Your task to perform on an android device: Install the Wikipedia app Image 0: 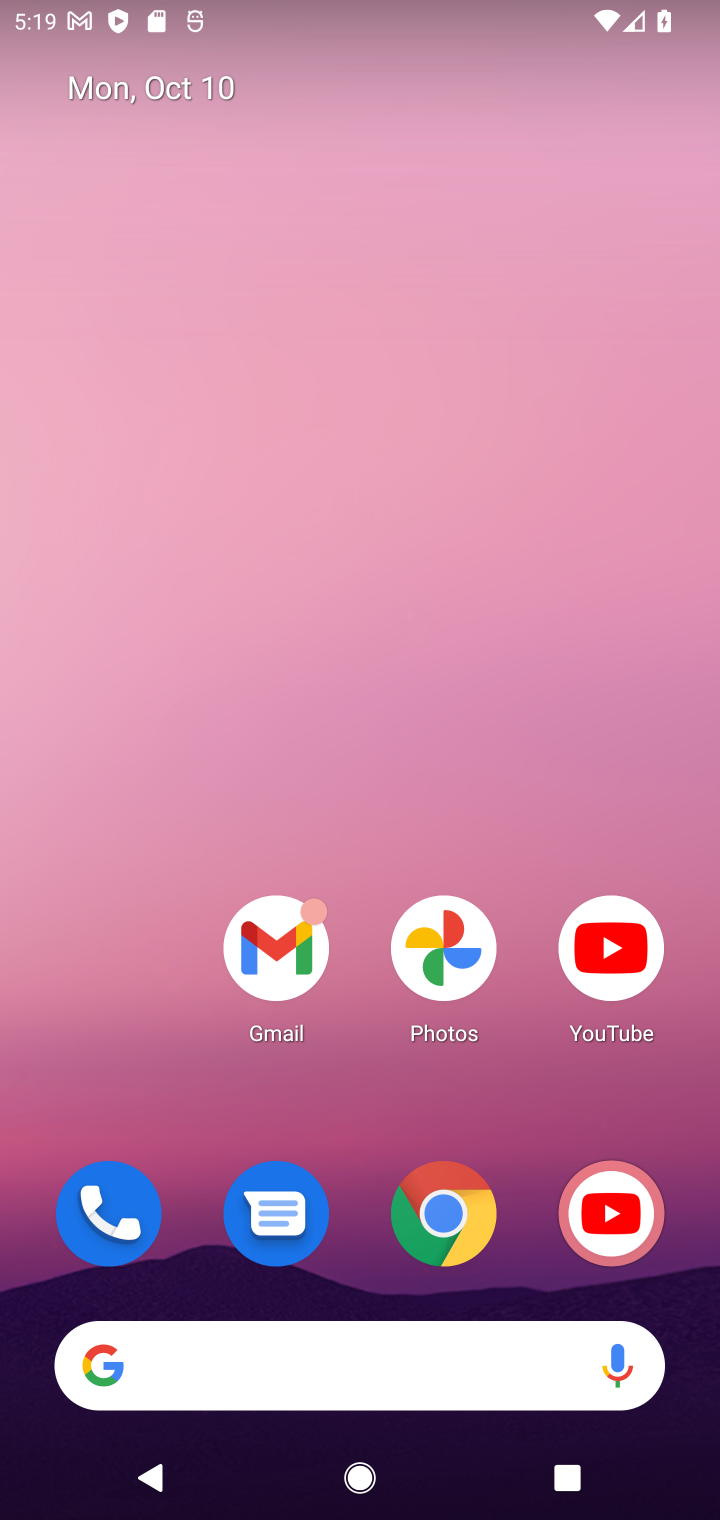
Step 0: drag from (362, 872) to (378, 76)
Your task to perform on an android device: Install the Wikipedia app Image 1: 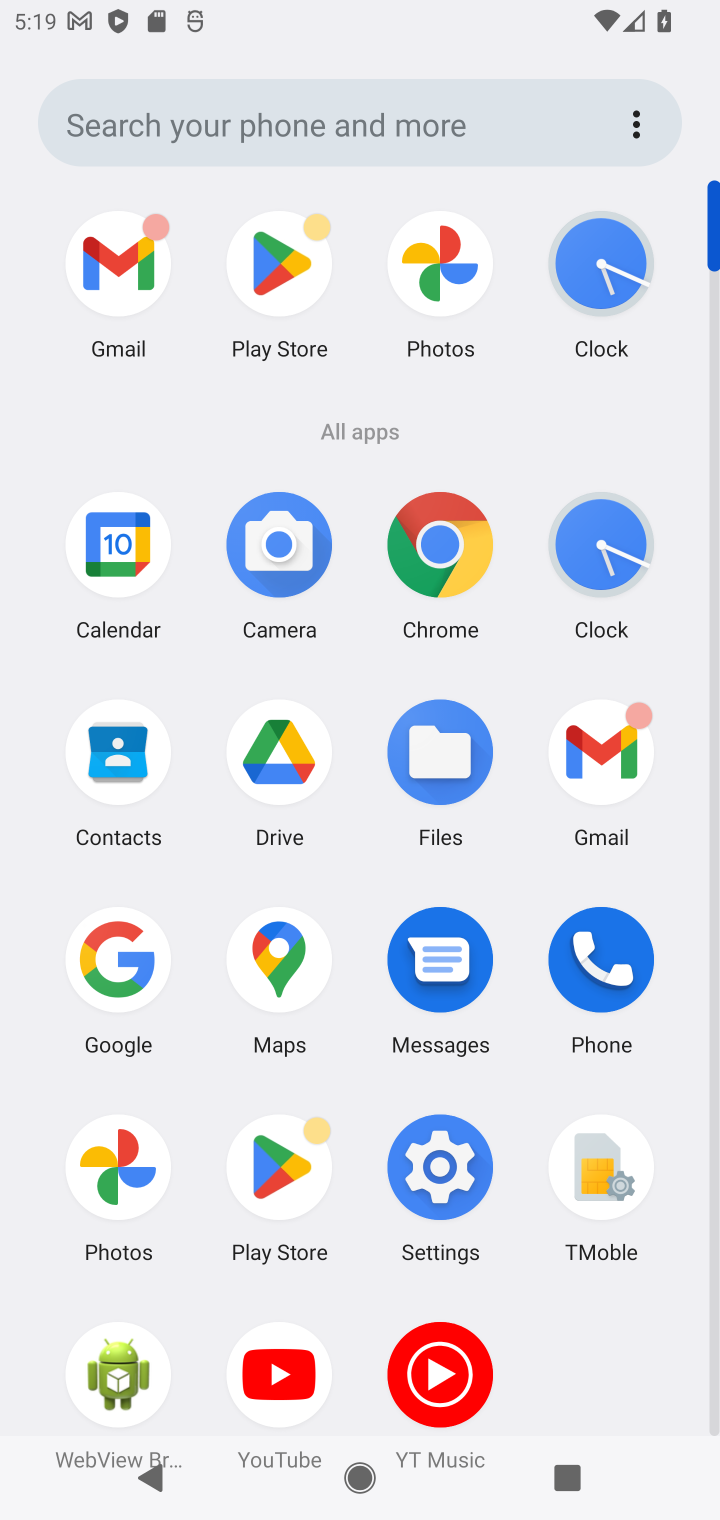
Step 1: click (268, 266)
Your task to perform on an android device: Install the Wikipedia app Image 2: 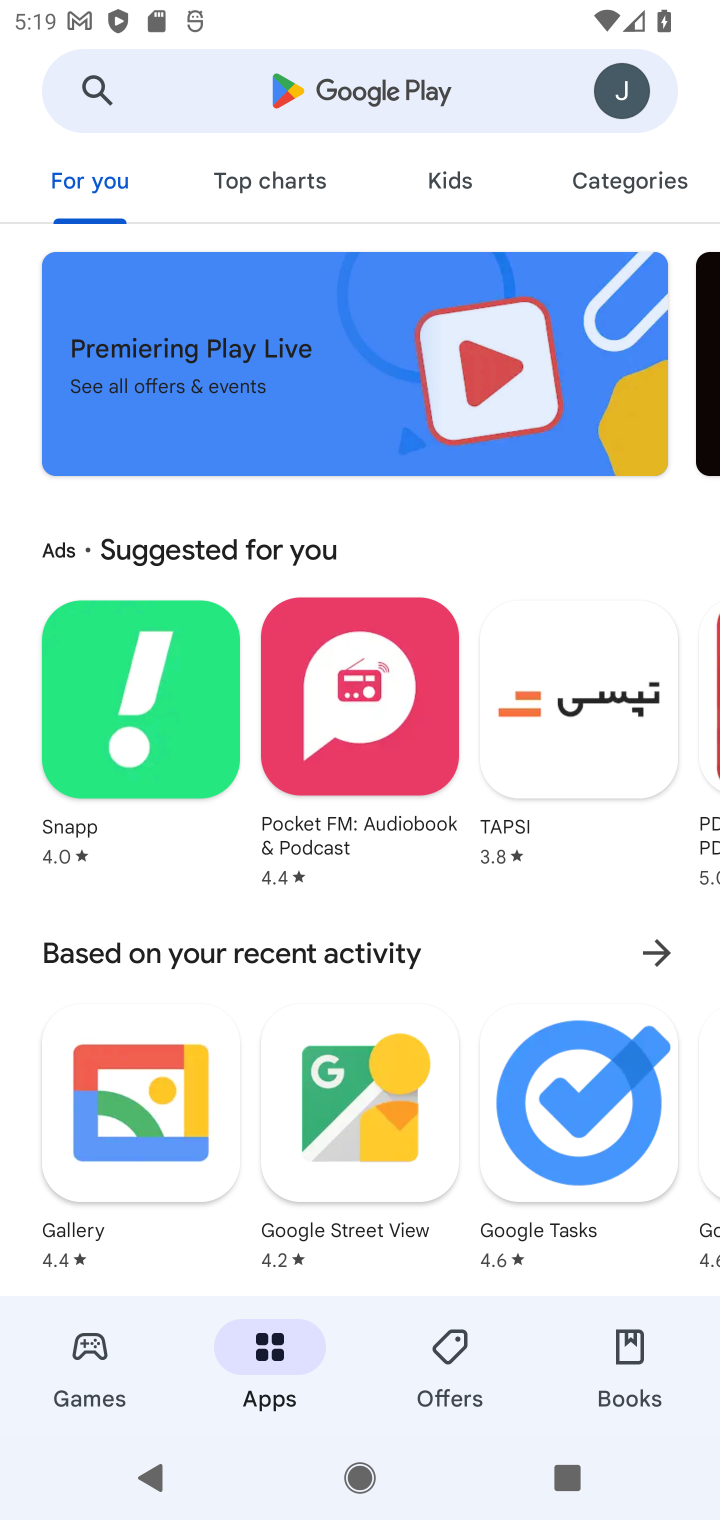
Step 2: click (442, 96)
Your task to perform on an android device: Install the Wikipedia app Image 3: 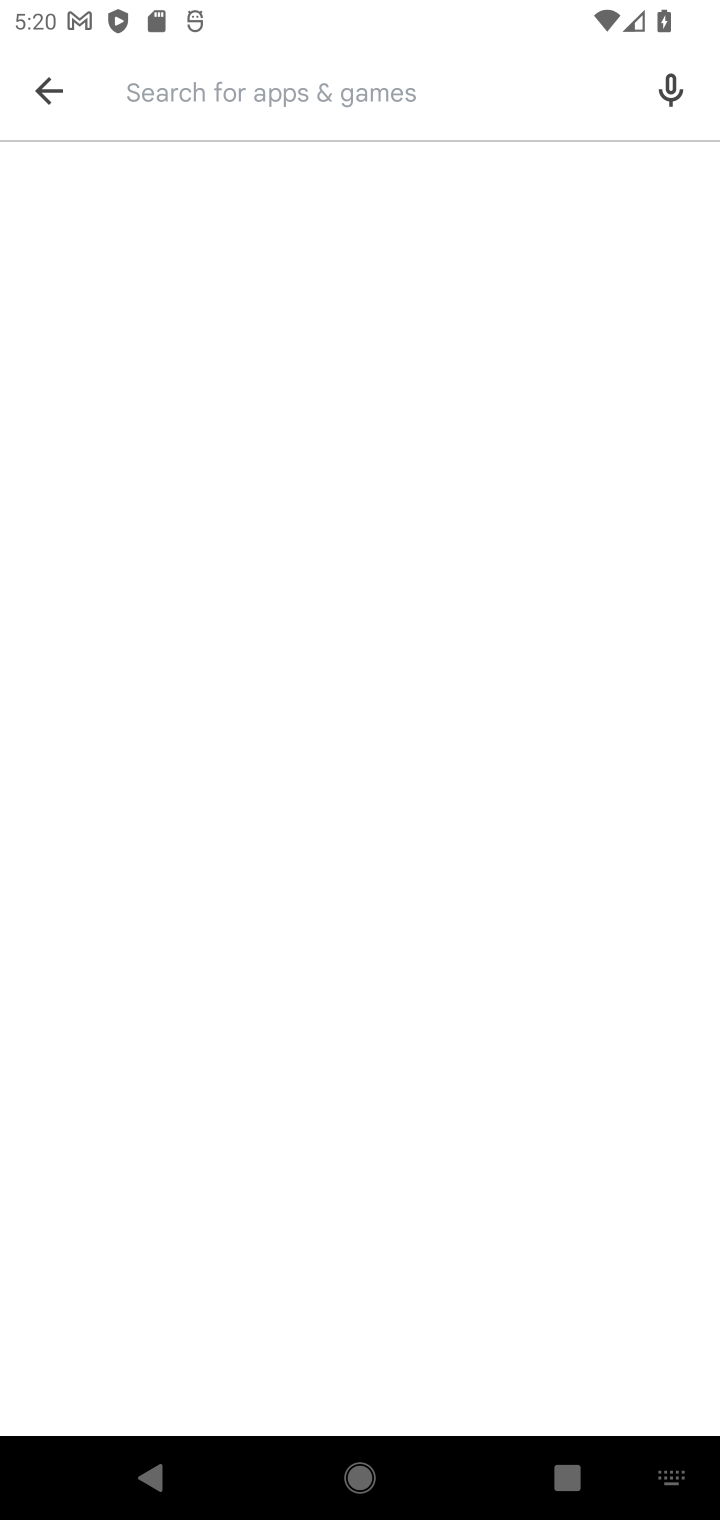
Step 3: type "wikipedia"
Your task to perform on an android device: Install the Wikipedia app Image 4: 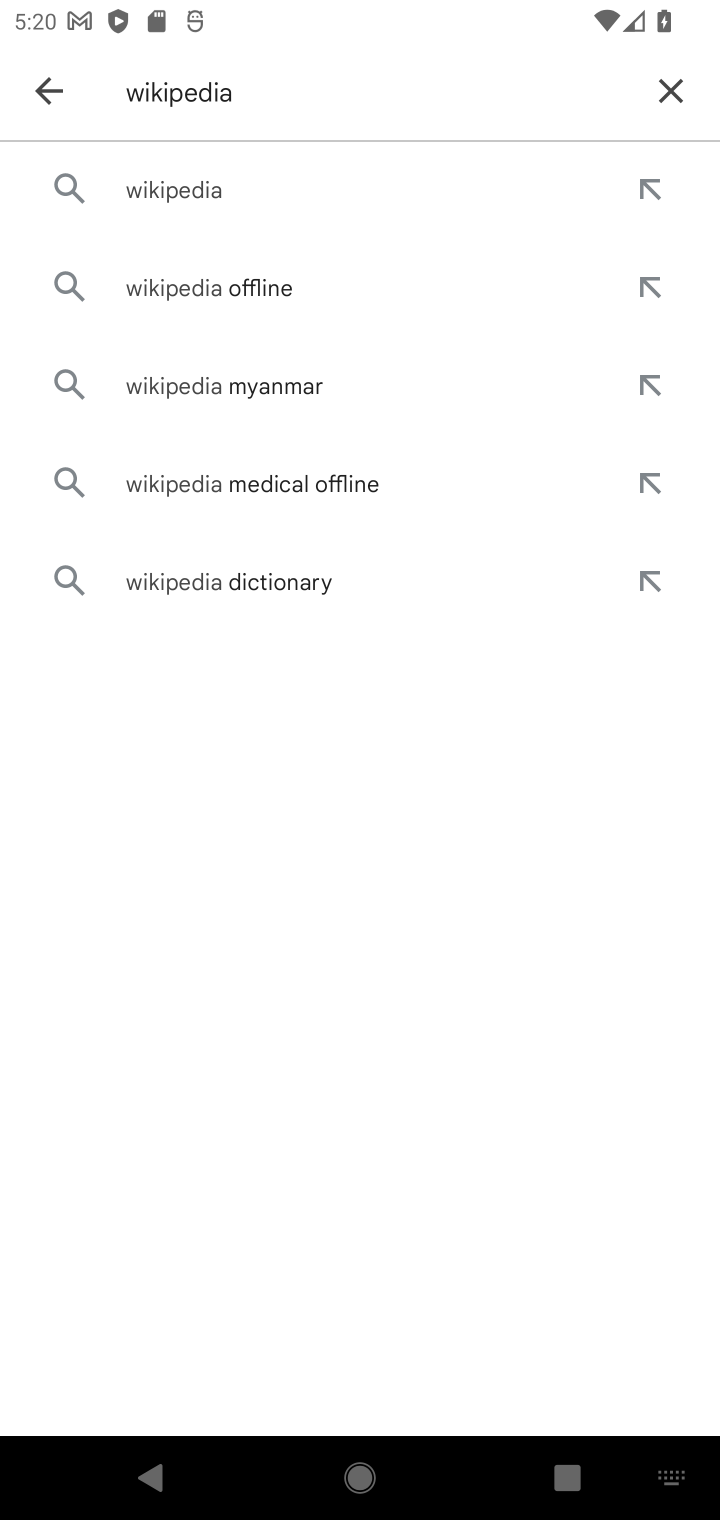
Step 4: click (337, 181)
Your task to perform on an android device: Install the Wikipedia app Image 5: 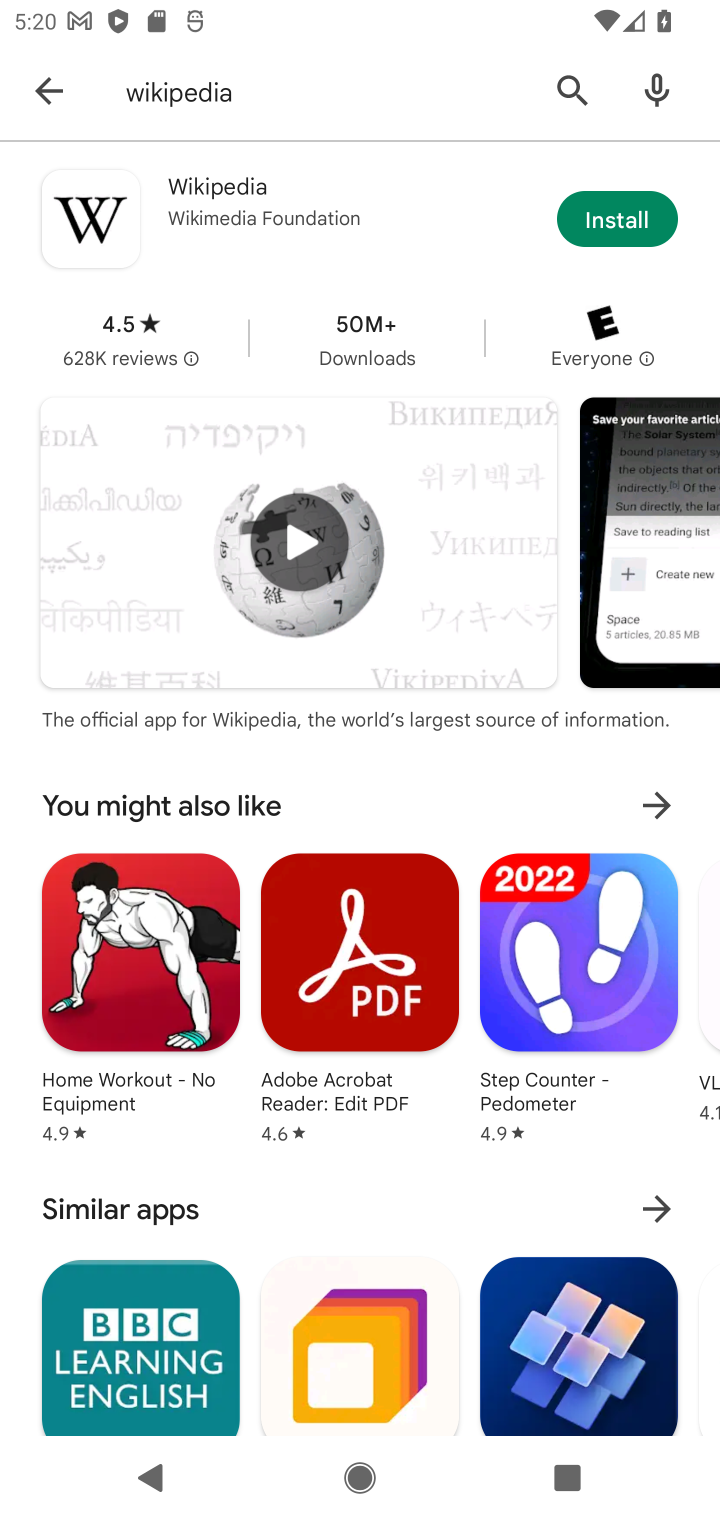
Step 5: click (619, 227)
Your task to perform on an android device: Install the Wikipedia app Image 6: 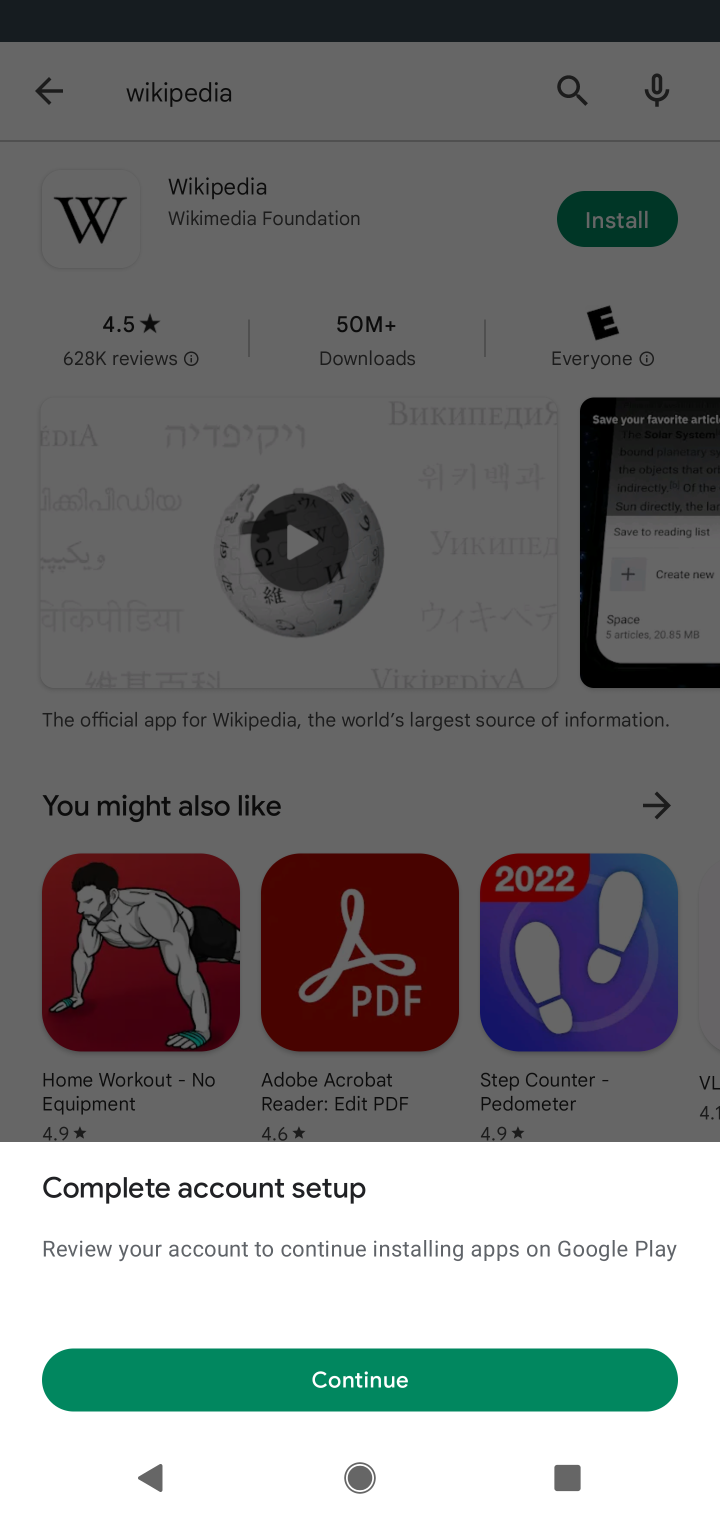
Step 6: click (261, 1406)
Your task to perform on an android device: Install the Wikipedia app Image 7: 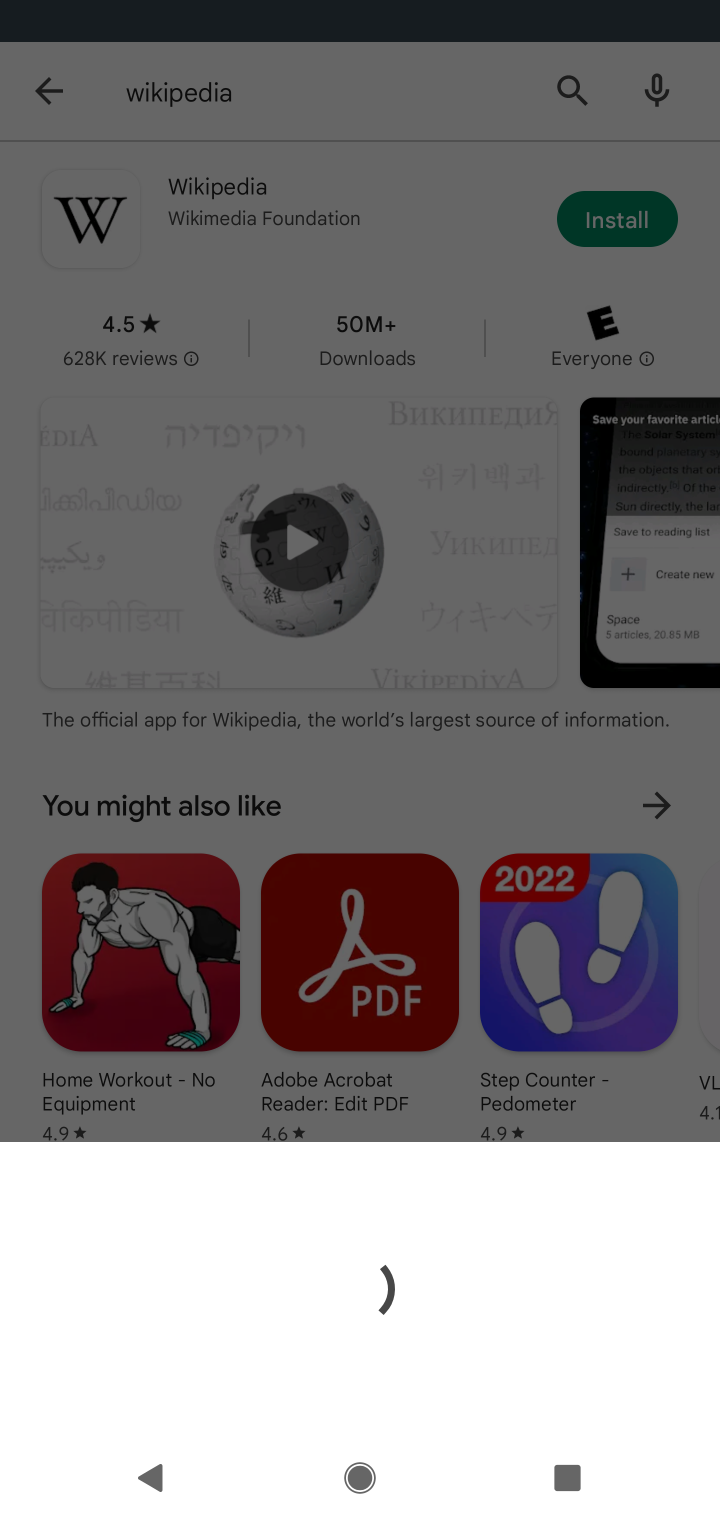
Step 7: click (281, 1379)
Your task to perform on an android device: Install the Wikipedia app Image 8: 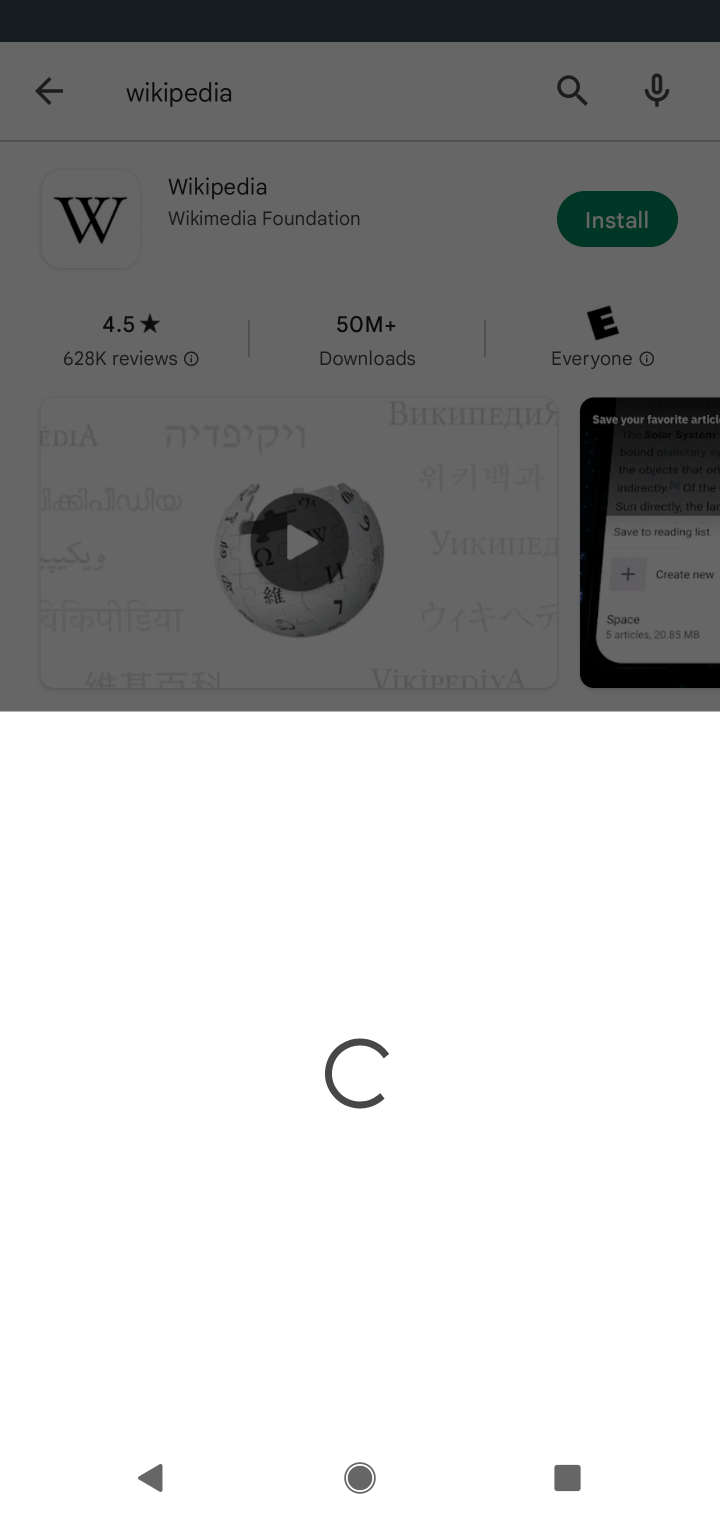
Step 8: click (244, 1392)
Your task to perform on an android device: Install the Wikipedia app Image 9: 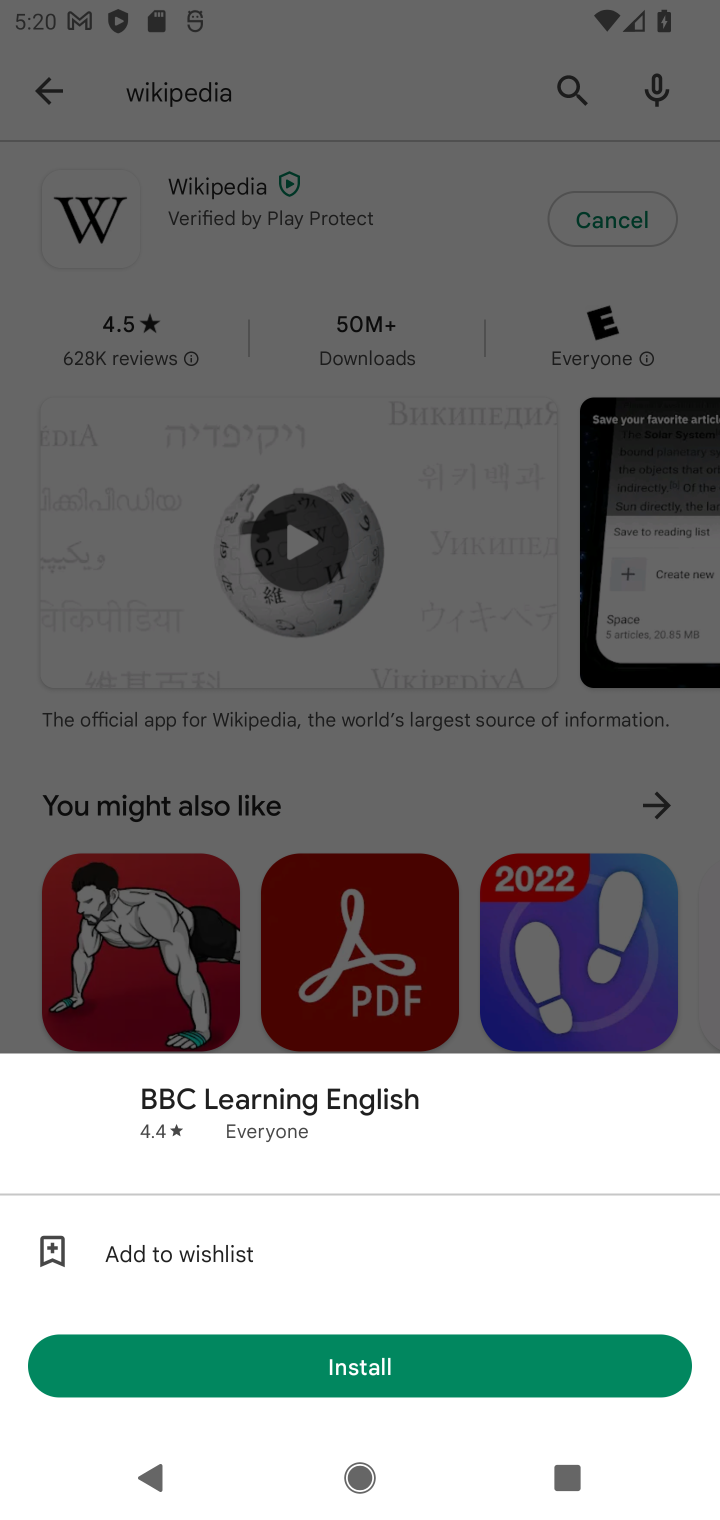
Step 9: click (597, 235)
Your task to perform on an android device: Install the Wikipedia app Image 10: 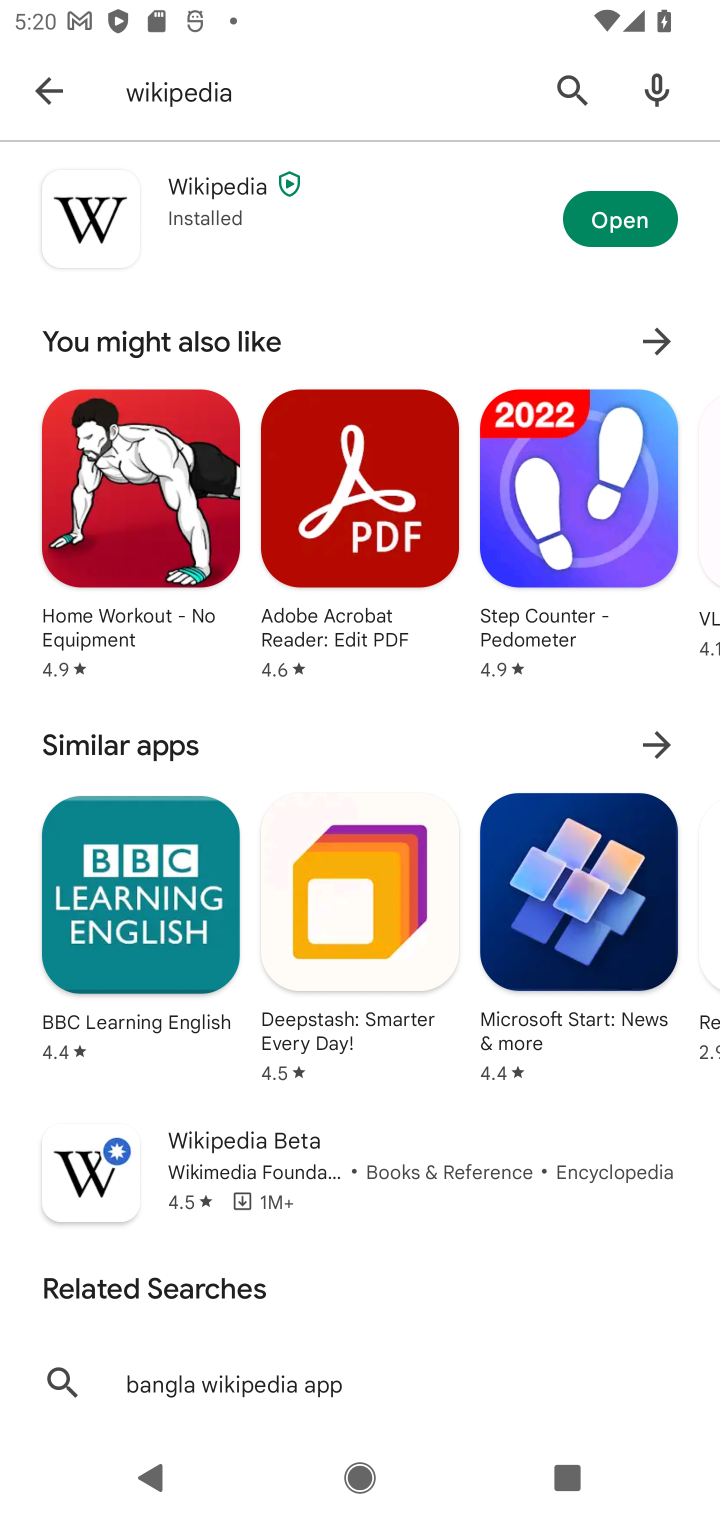
Step 10: click (605, 228)
Your task to perform on an android device: Install the Wikipedia app Image 11: 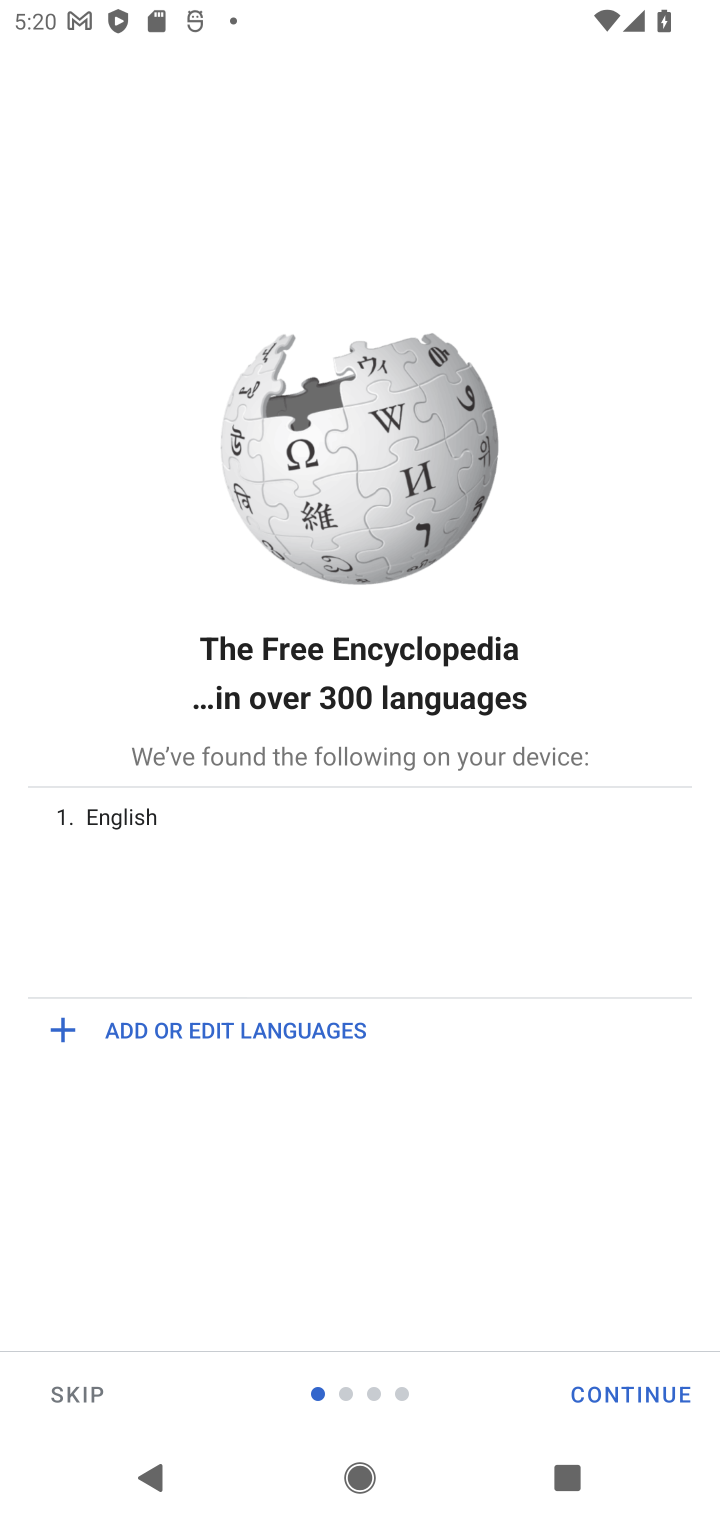
Step 11: task complete